Your task to perform on an android device: toggle improve location accuracy Image 0: 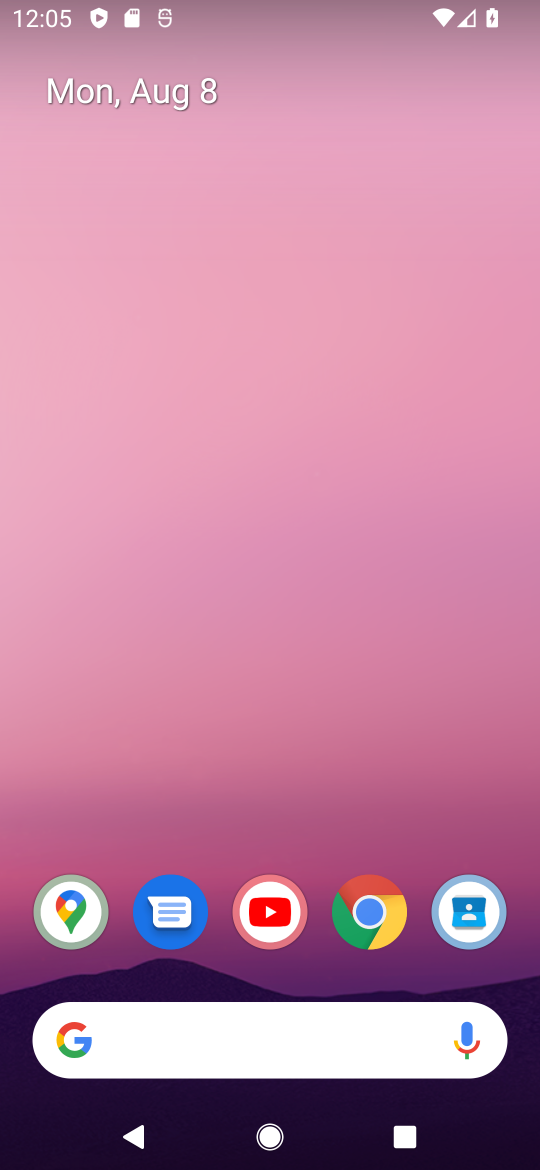
Step 0: drag from (284, 974) to (381, 47)
Your task to perform on an android device: toggle improve location accuracy Image 1: 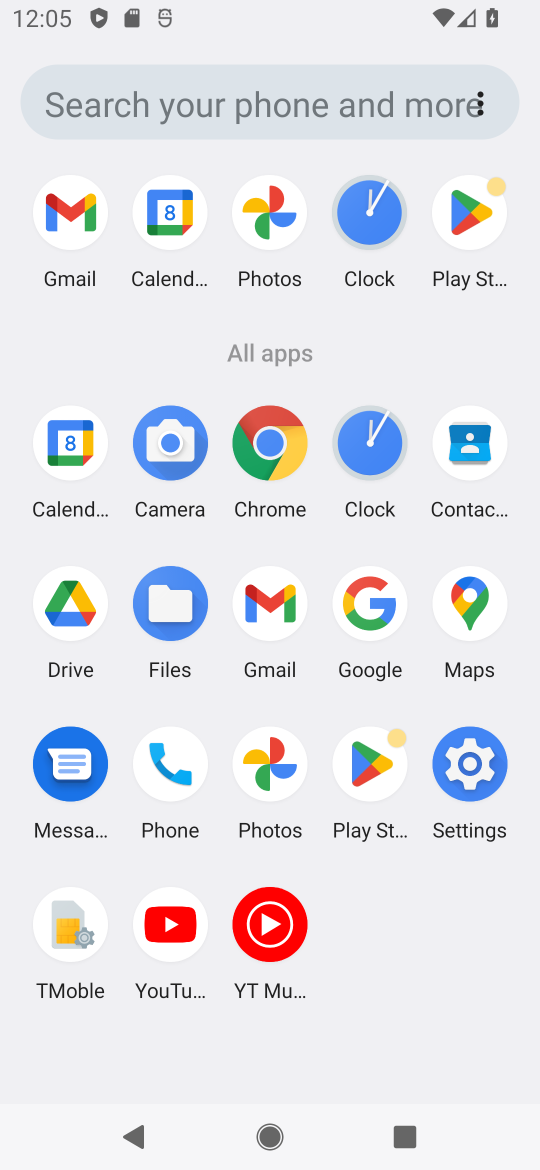
Step 1: click (462, 763)
Your task to perform on an android device: toggle improve location accuracy Image 2: 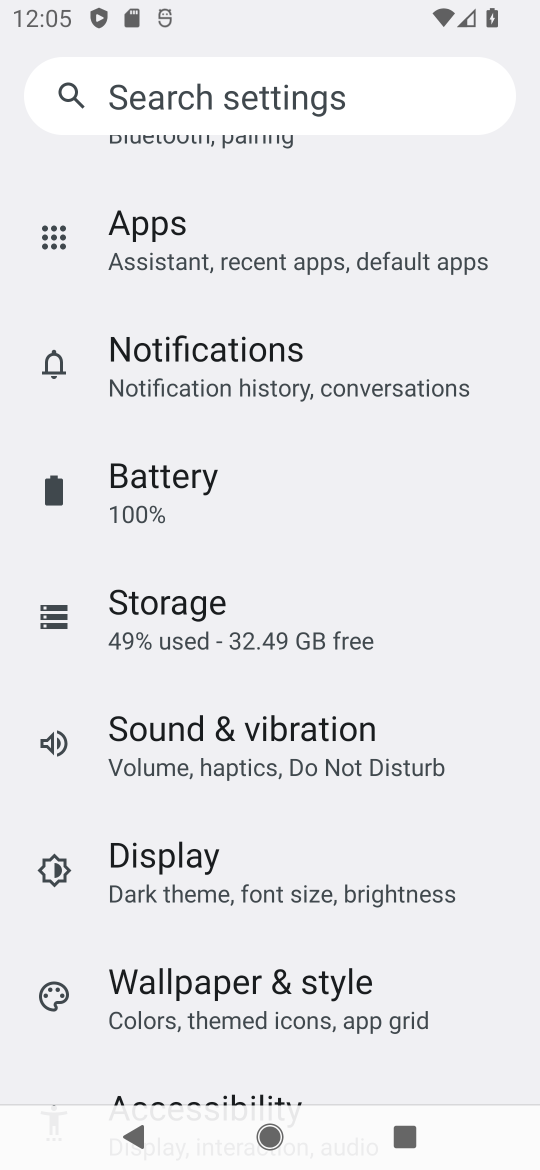
Step 2: drag from (248, 1039) to (460, 214)
Your task to perform on an android device: toggle improve location accuracy Image 3: 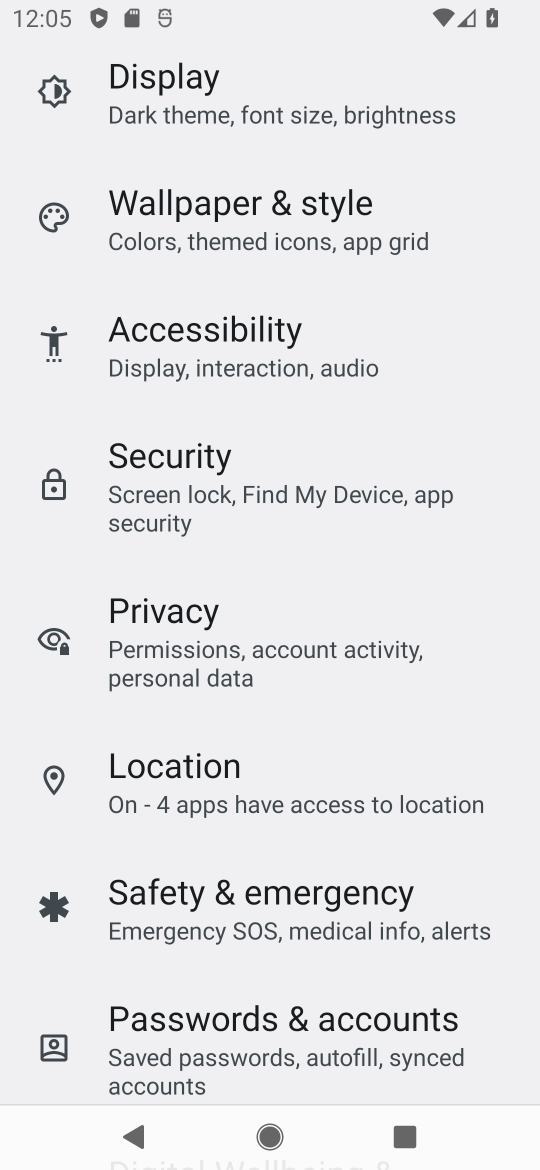
Step 3: click (204, 774)
Your task to perform on an android device: toggle improve location accuracy Image 4: 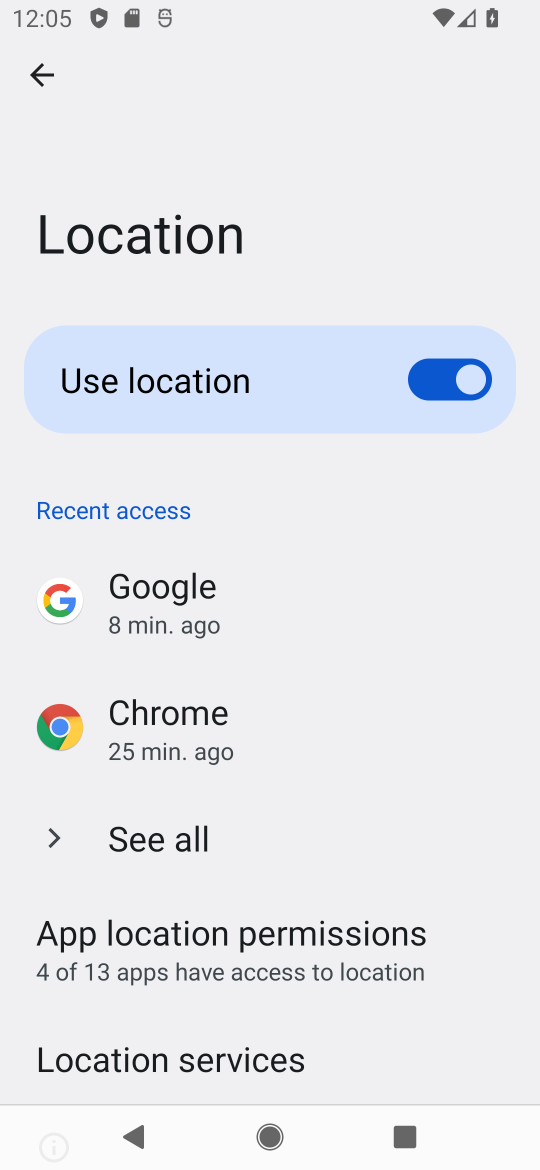
Step 4: drag from (214, 976) to (296, 554)
Your task to perform on an android device: toggle improve location accuracy Image 5: 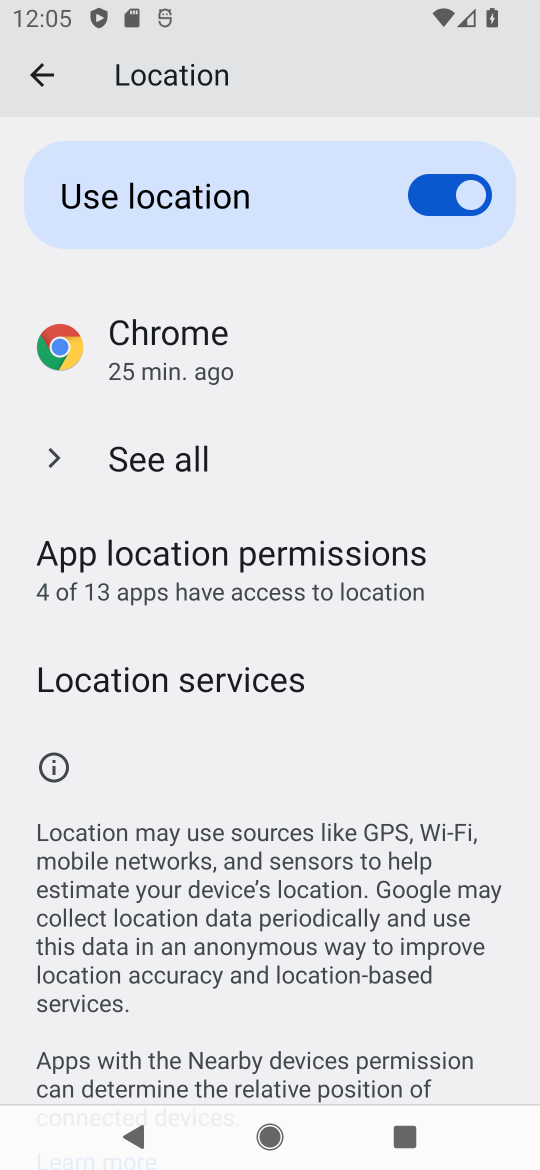
Step 5: click (139, 679)
Your task to perform on an android device: toggle improve location accuracy Image 6: 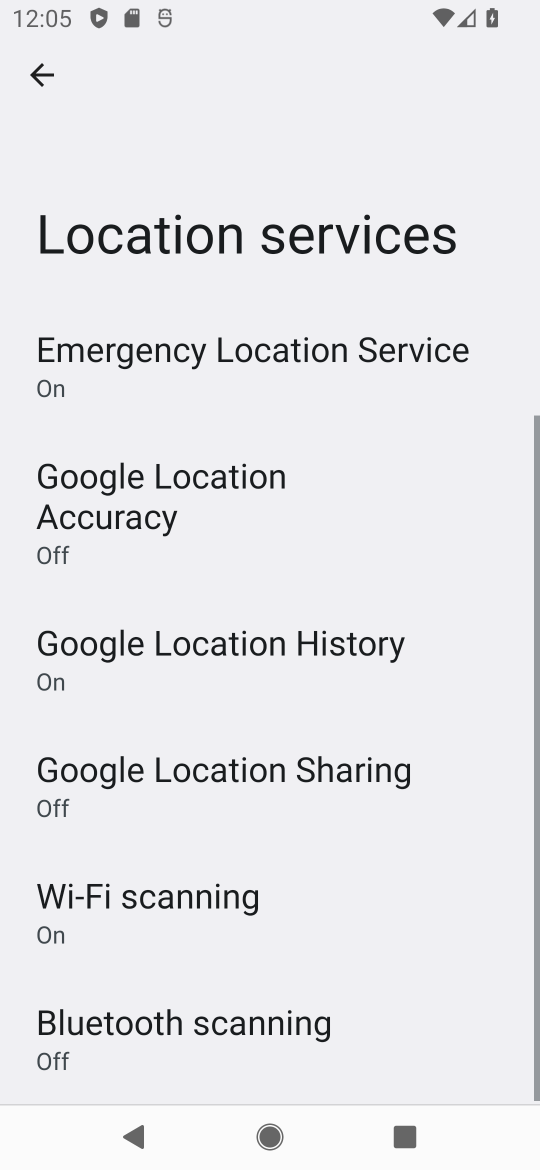
Step 6: click (147, 491)
Your task to perform on an android device: toggle improve location accuracy Image 7: 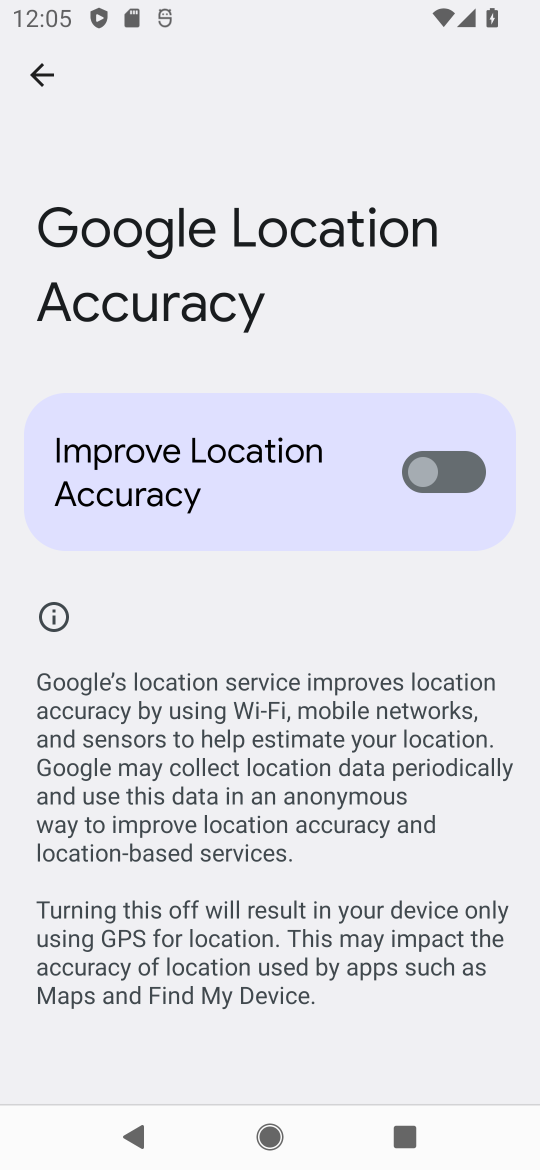
Step 7: click (453, 461)
Your task to perform on an android device: toggle improve location accuracy Image 8: 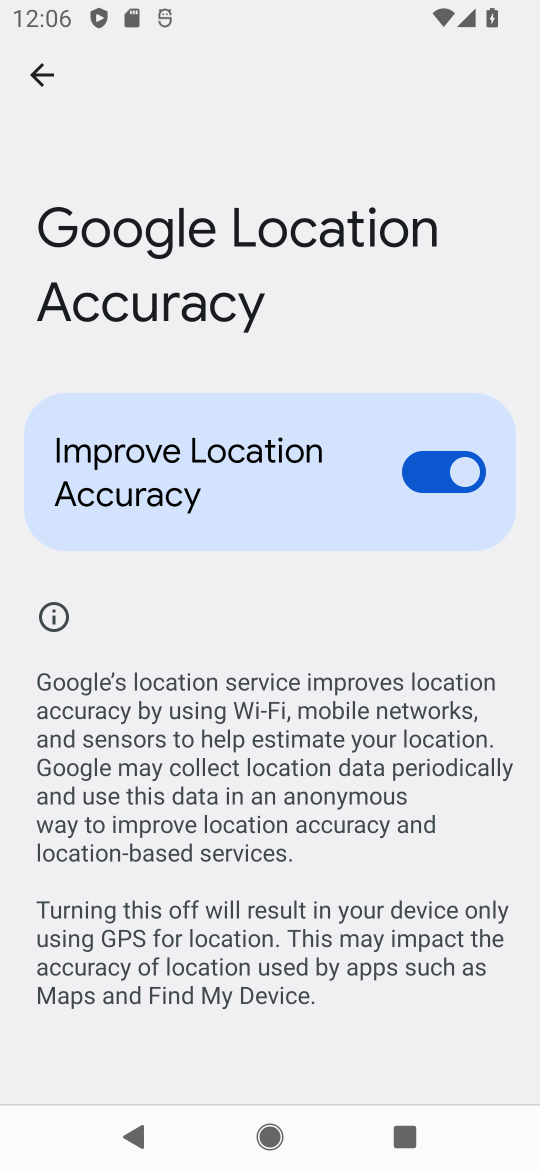
Step 8: task complete